Your task to perform on an android device: Go to network settings Image 0: 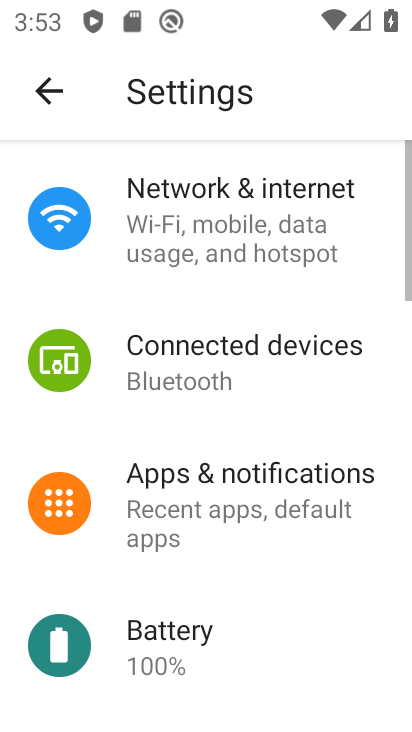
Step 0: press home button
Your task to perform on an android device: Go to network settings Image 1: 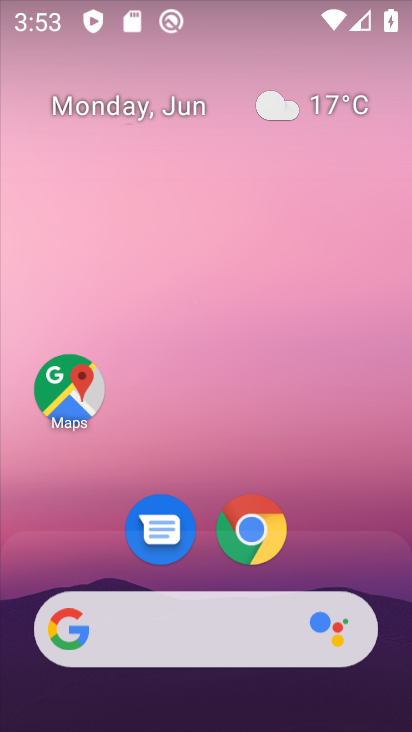
Step 1: drag from (281, 352) to (249, 97)
Your task to perform on an android device: Go to network settings Image 2: 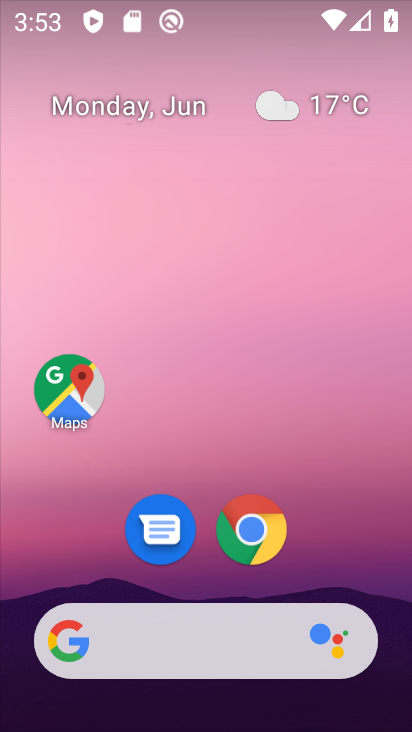
Step 2: drag from (349, 544) to (270, 9)
Your task to perform on an android device: Go to network settings Image 3: 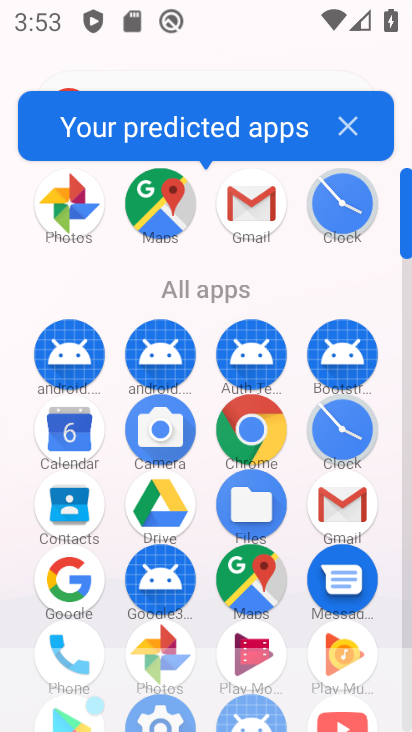
Step 3: drag from (298, 467) to (321, 168)
Your task to perform on an android device: Go to network settings Image 4: 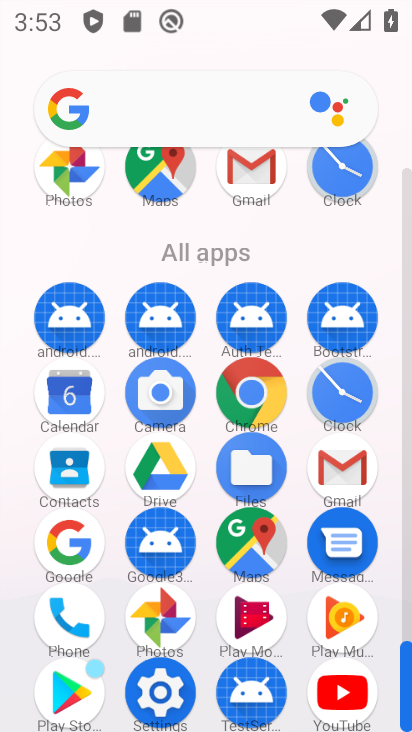
Step 4: click (159, 688)
Your task to perform on an android device: Go to network settings Image 5: 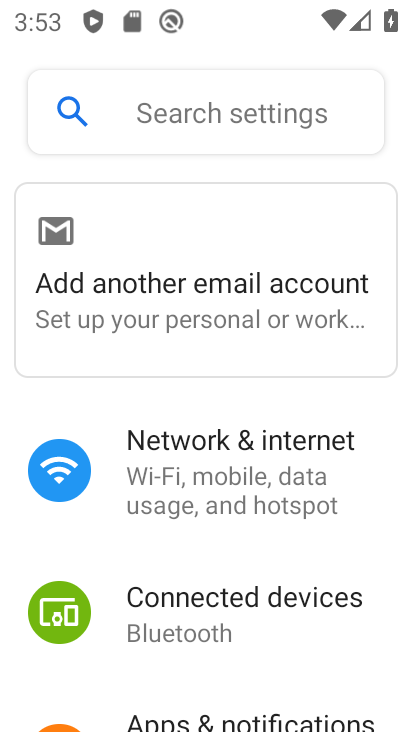
Step 5: click (229, 447)
Your task to perform on an android device: Go to network settings Image 6: 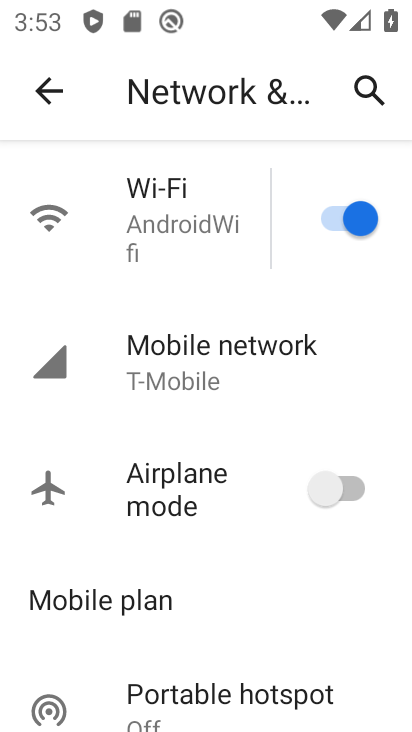
Step 6: task complete